Your task to perform on an android device: Toggle the flashlight Image 0: 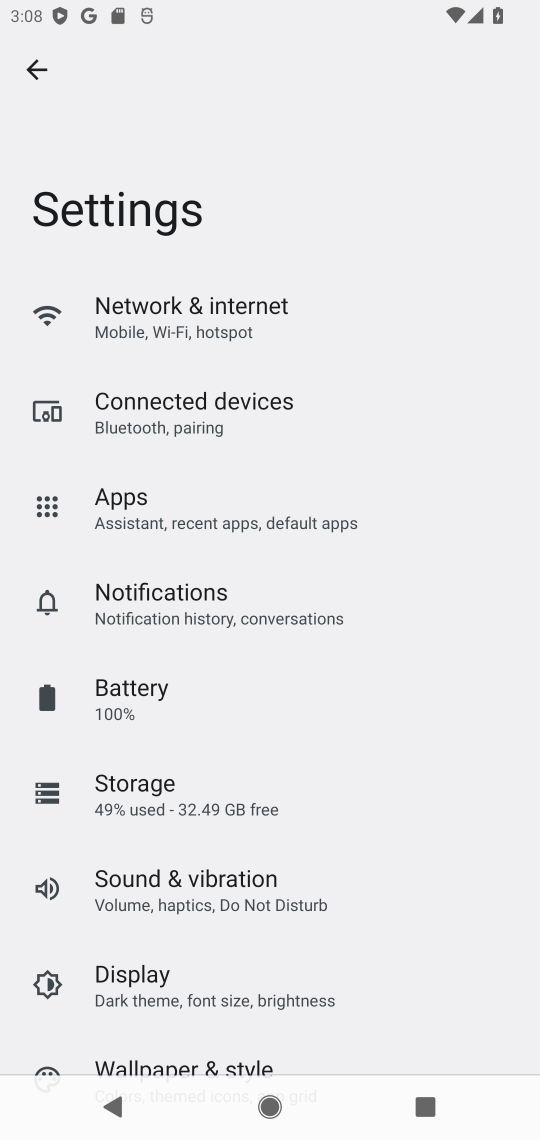
Step 0: click (37, 73)
Your task to perform on an android device: Toggle the flashlight Image 1: 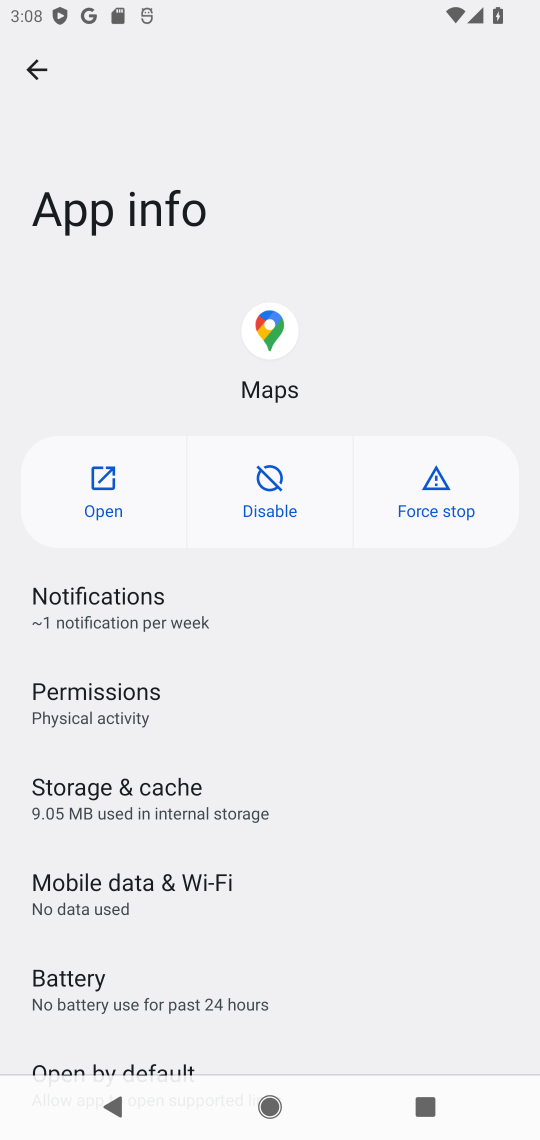
Step 1: press home button
Your task to perform on an android device: Toggle the flashlight Image 2: 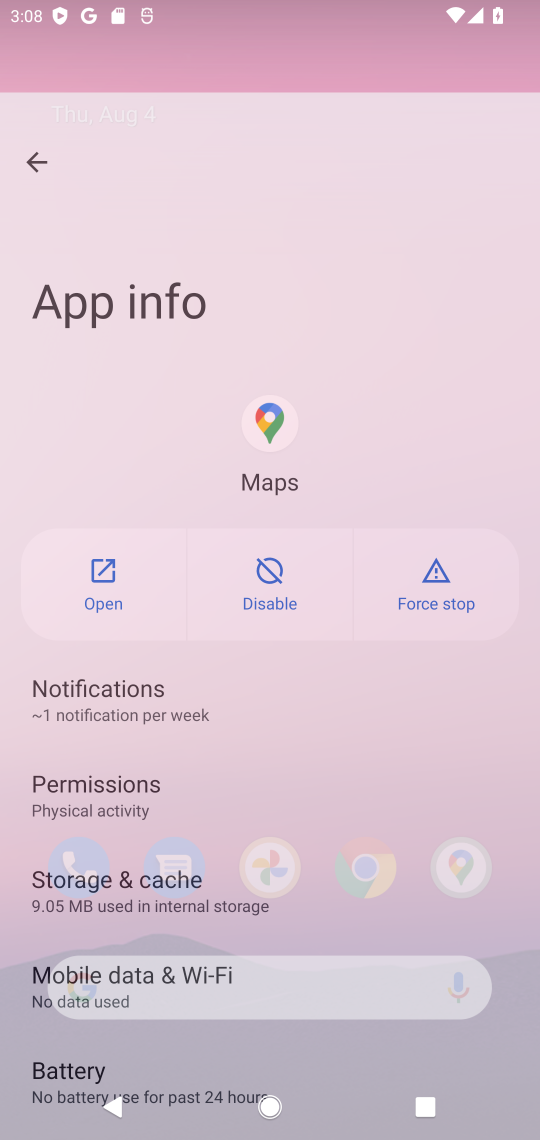
Step 2: drag from (342, 899) to (353, 474)
Your task to perform on an android device: Toggle the flashlight Image 3: 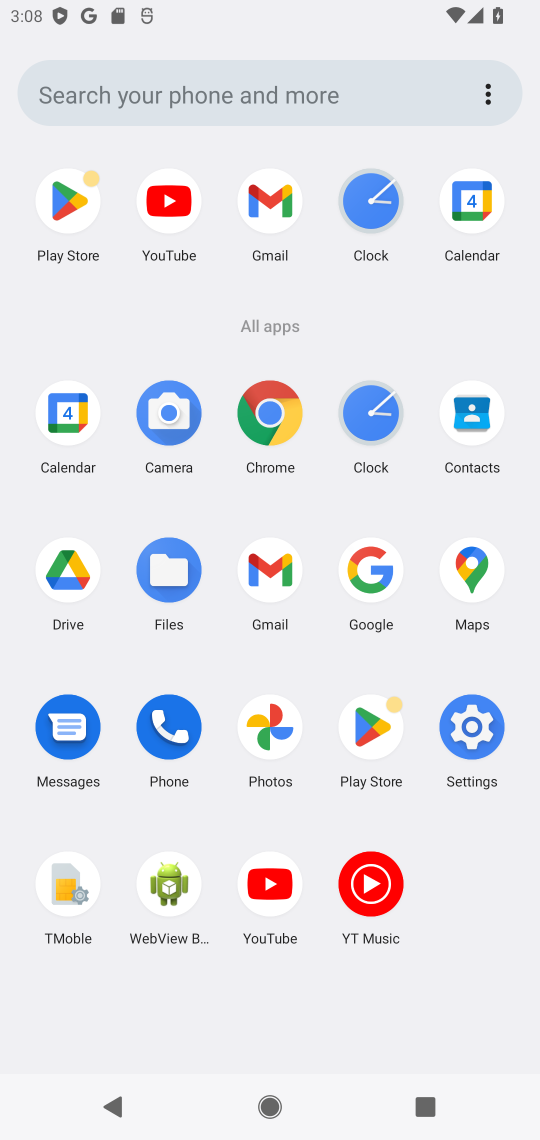
Step 3: click (482, 726)
Your task to perform on an android device: Toggle the flashlight Image 4: 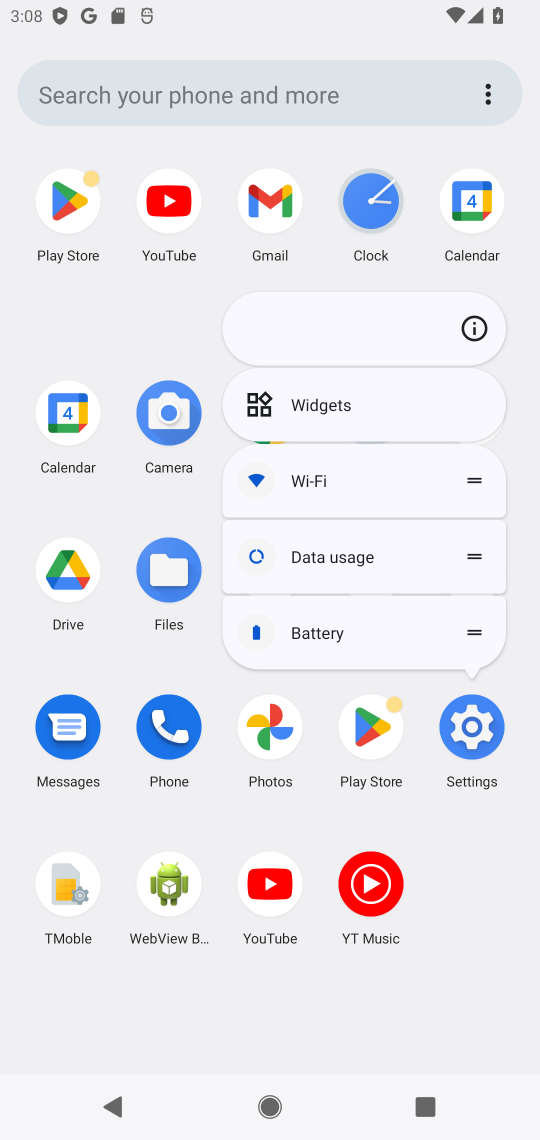
Step 4: click (472, 340)
Your task to perform on an android device: Toggle the flashlight Image 5: 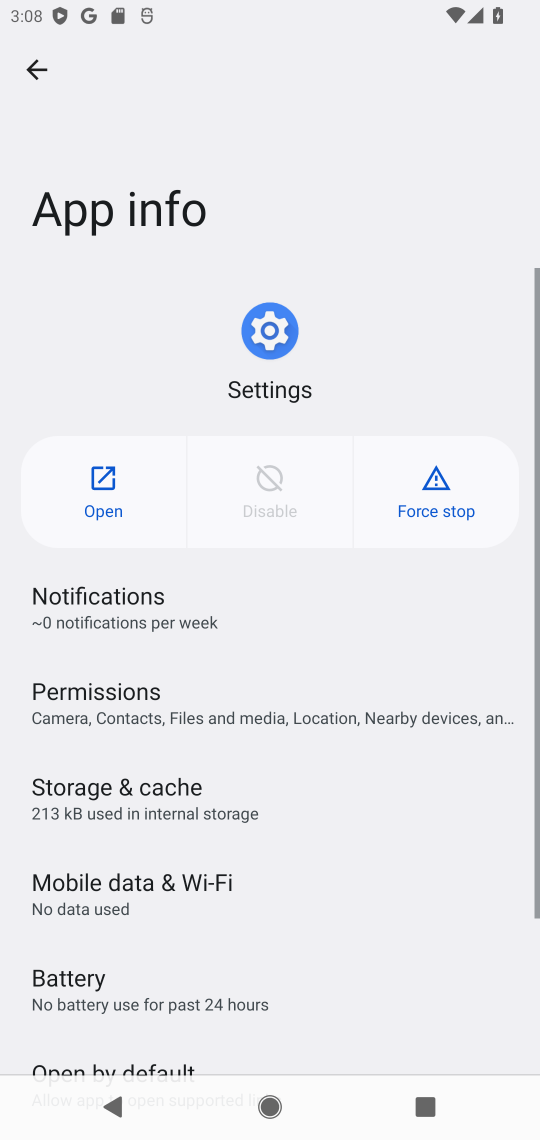
Step 5: click (82, 492)
Your task to perform on an android device: Toggle the flashlight Image 6: 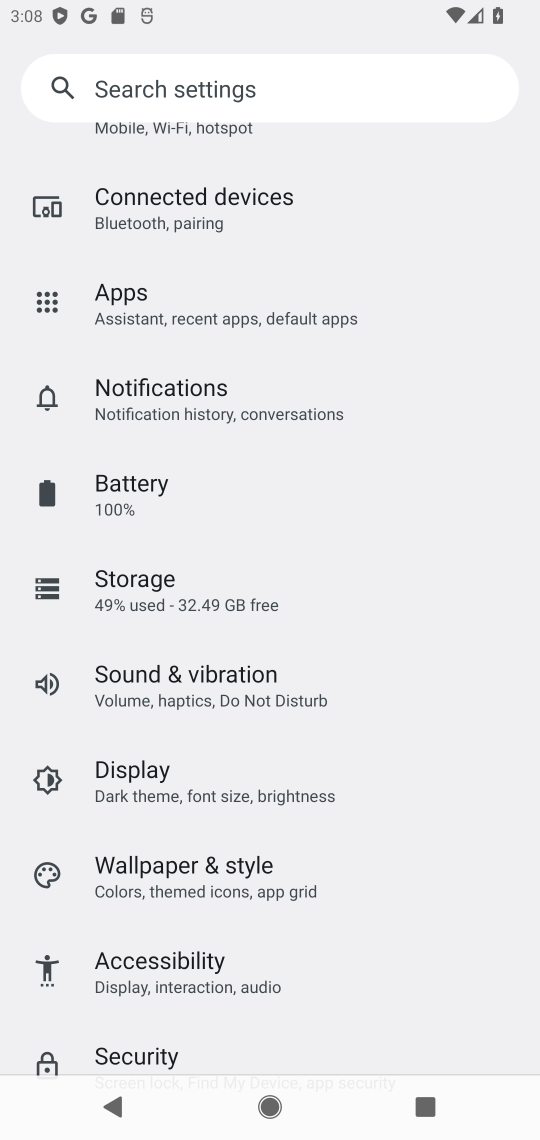
Step 6: drag from (243, 475) to (344, 1133)
Your task to perform on an android device: Toggle the flashlight Image 7: 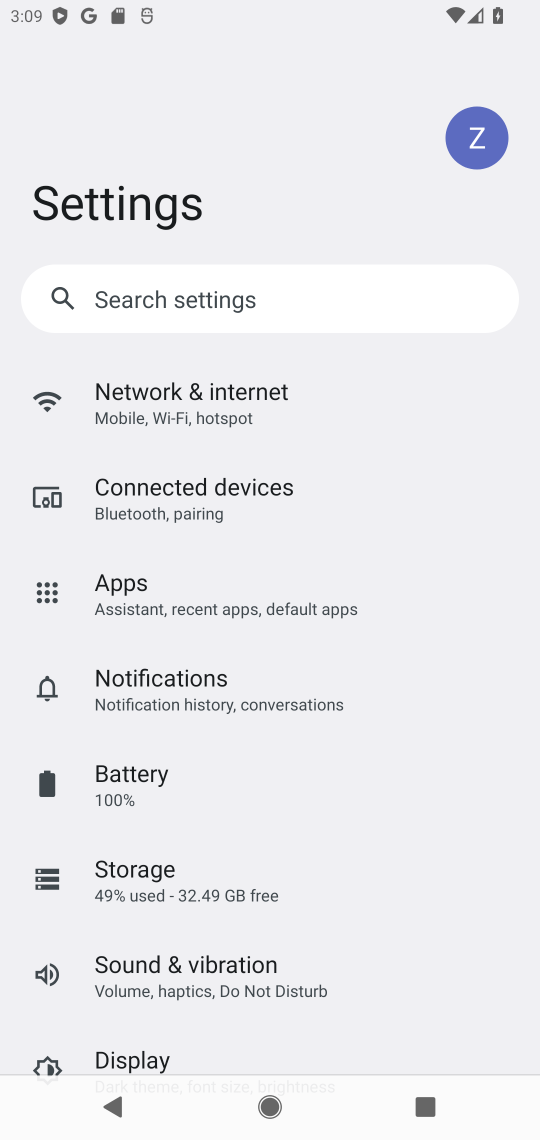
Step 7: drag from (273, 875) to (325, 293)
Your task to perform on an android device: Toggle the flashlight Image 8: 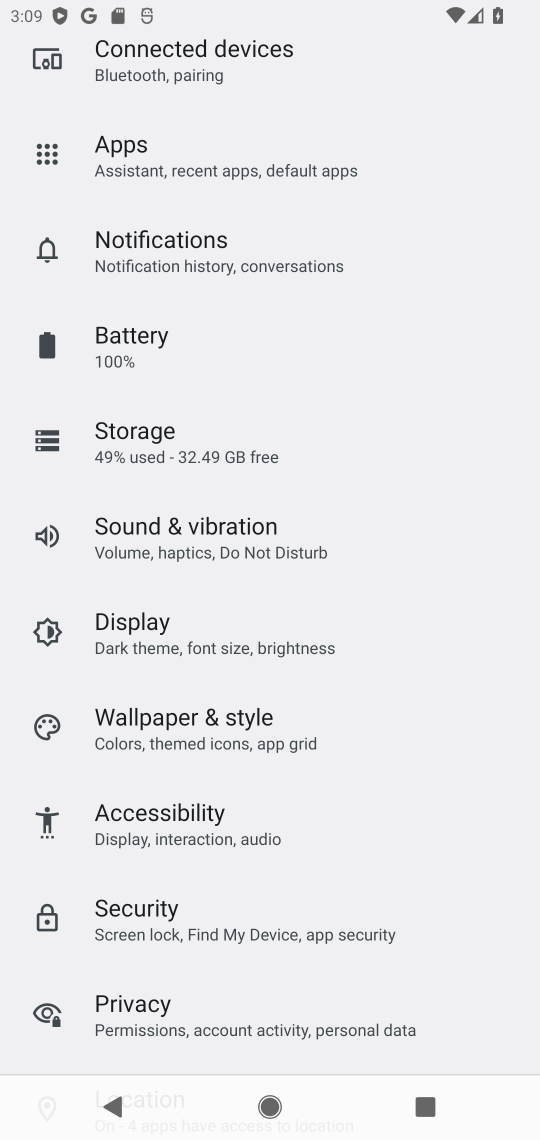
Step 8: drag from (193, 248) to (517, 1121)
Your task to perform on an android device: Toggle the flashlight Image 9: 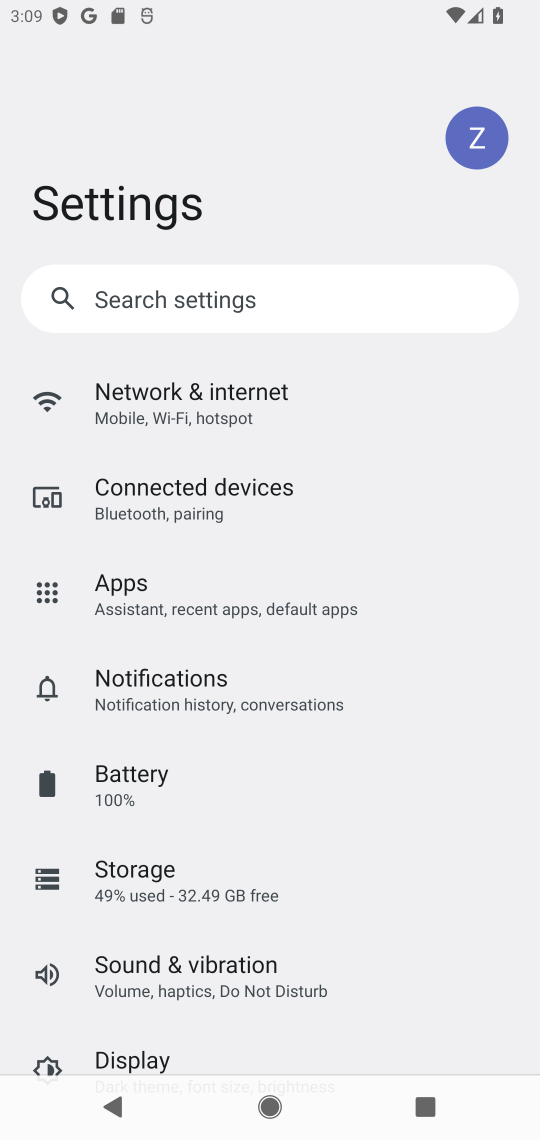
Step 9: click (219, 290)
Your task to perform on an android device: Toggle the flashlight Image 10: 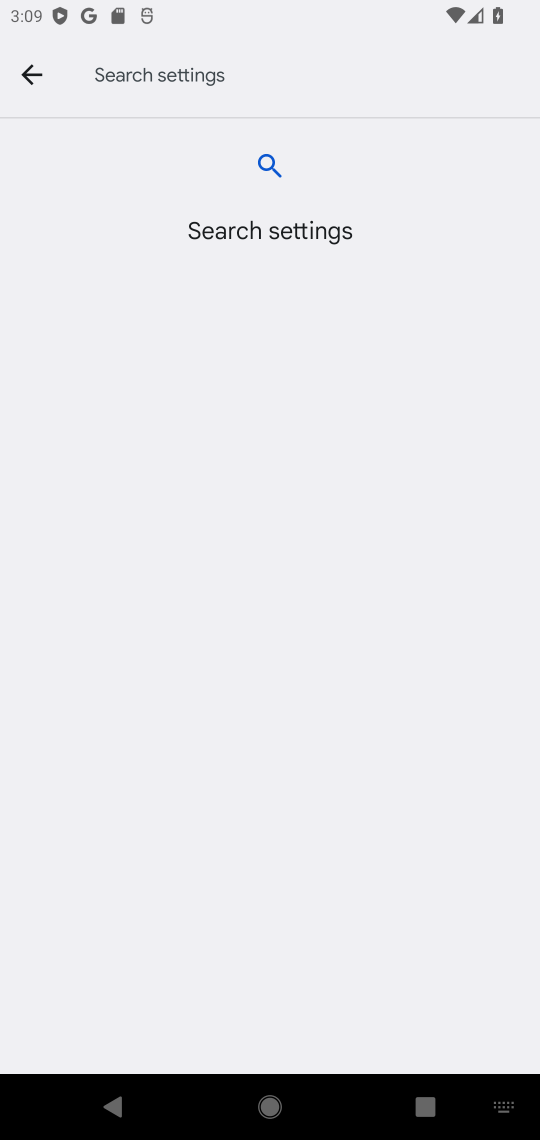
Step 10: type "flashlight"
Your task to perform on an android device: Toggle the flashlight Image 11: 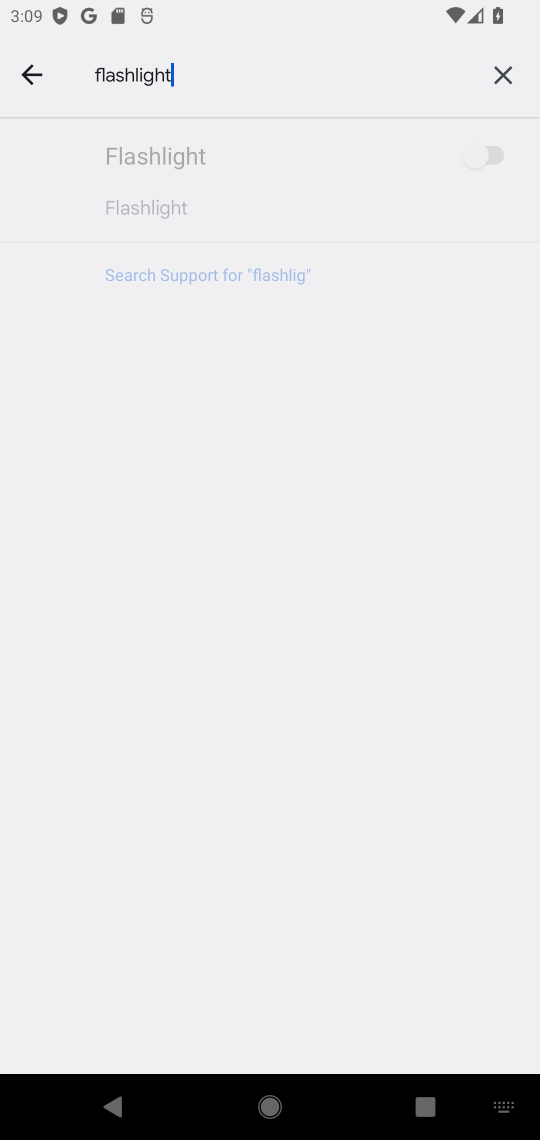
Step 11: type ""
Your task to perform on an android device: Toggle the flashlight Image 12: 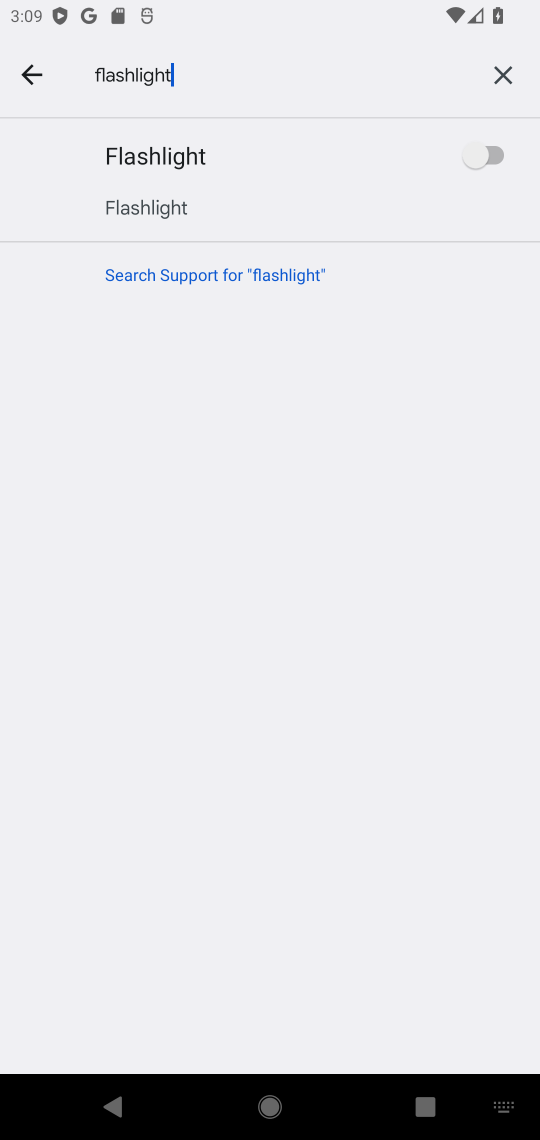
Step 12: click (455, 150)
Your task to perform on an android device: Toggle the flashlight Image 13: 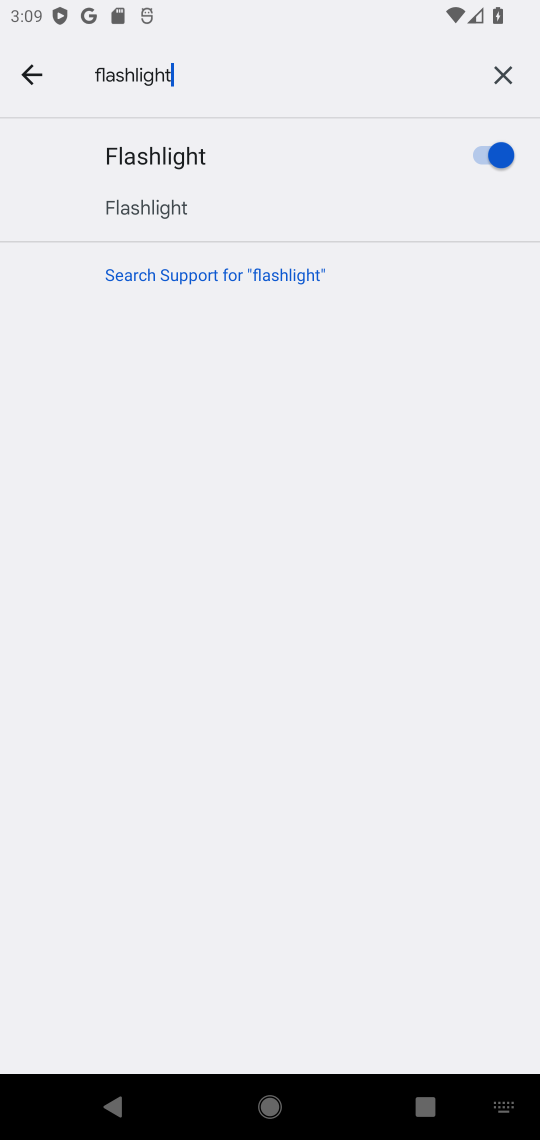
Step 13: task complete